Your task to perform on an android device: Open Wikipedia Image 0: 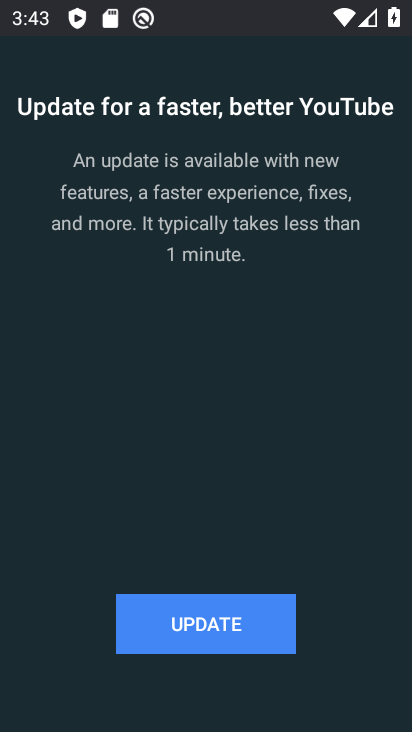
Step 0: drag from (157, 630) to (48, 592)
Your task to perform on an android device: Open Wikipedia Image 1: 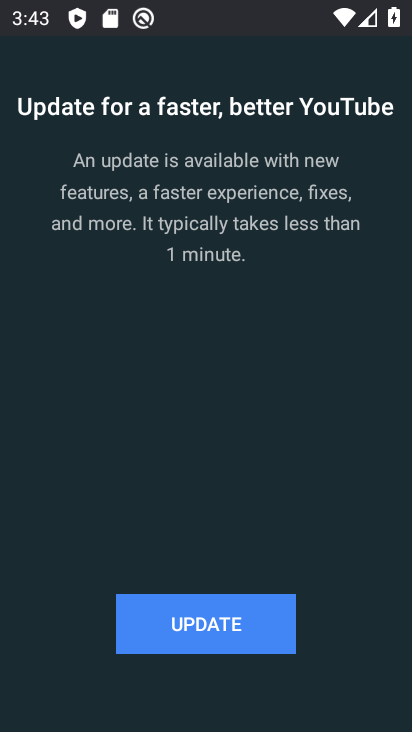
Step 1: press home button
Your task to perform on an android device: Open Wikipedia Image 2: 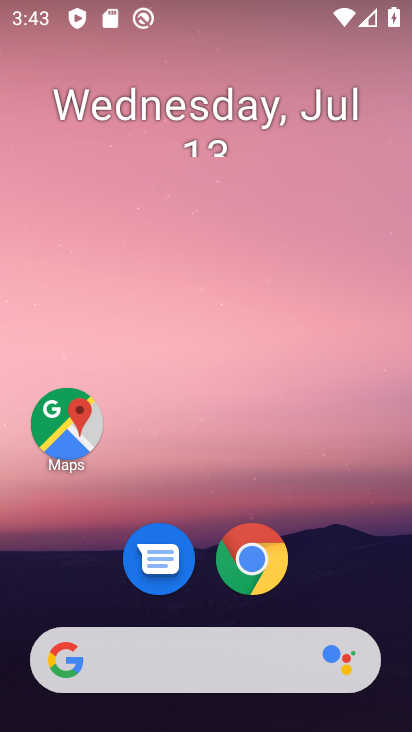
Step 2: click (250, 564)
Your task to perform on an android device: Open Wikipedia Image 3: 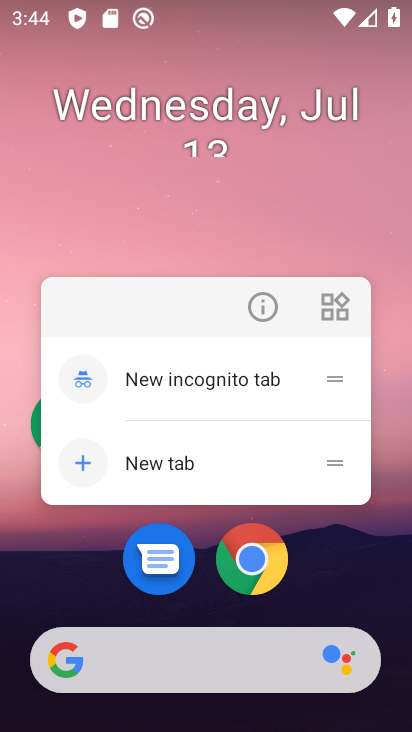
Step 3: click (243, 574)
Your task to perform on an android device: Open Wikipedia Image 4: 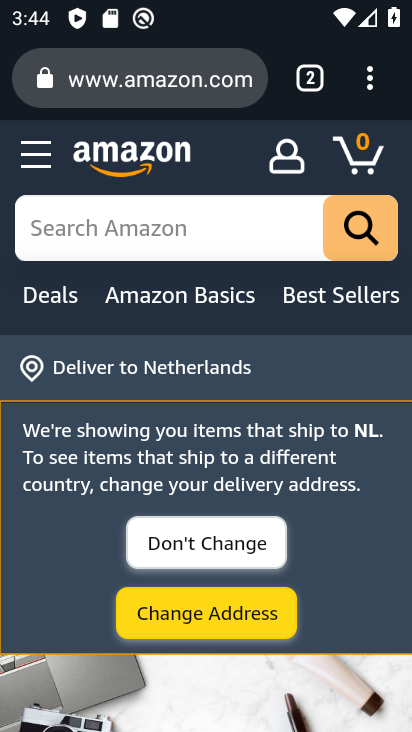
Step 4: click (315, 71)
Your task to perform on an android device: Open Wikipedia Image 5: 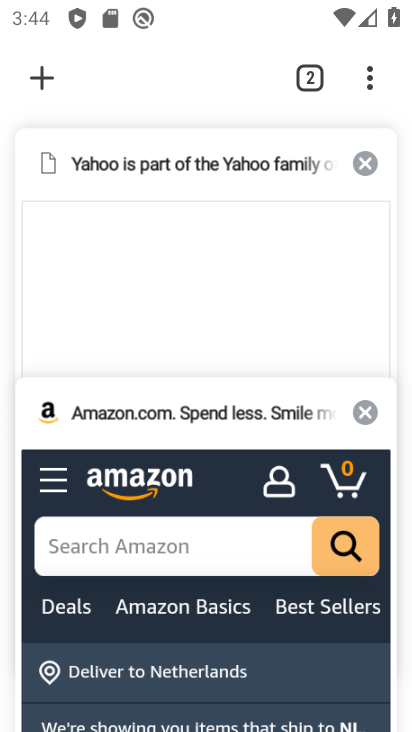
Step 5: click (353, 164)
Your task to perform on an android device: Open Wikipedia Image 6: 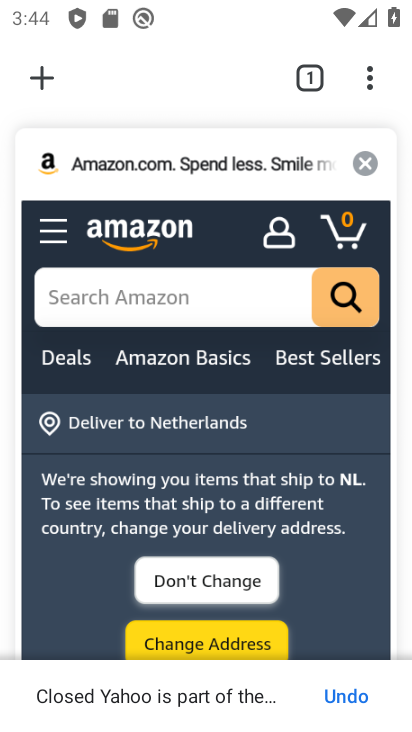
Step 6: click (360, 168)
Your task to perform on an android device: Open Wikipedia Image 7: 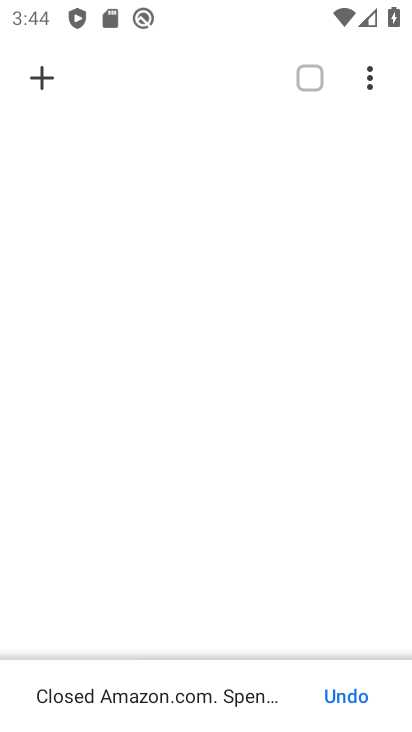
Step 7: click (35, 75)
Your task to perform on an android device: Open Wikipedia Image 8: 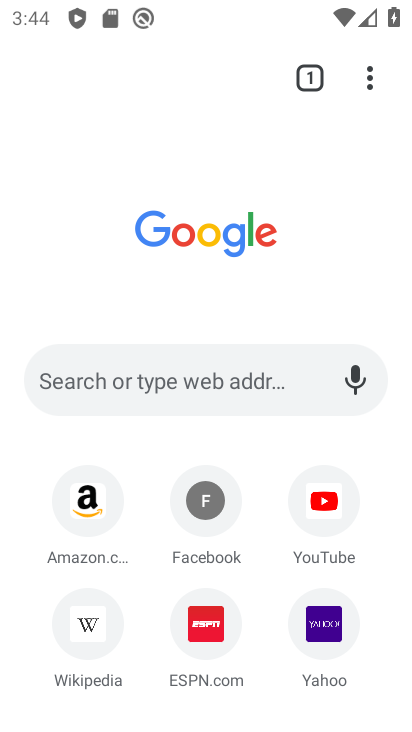
Step 8: click (90, 625)
Your task to perform on an android device: Open Wikipedia Image 9: 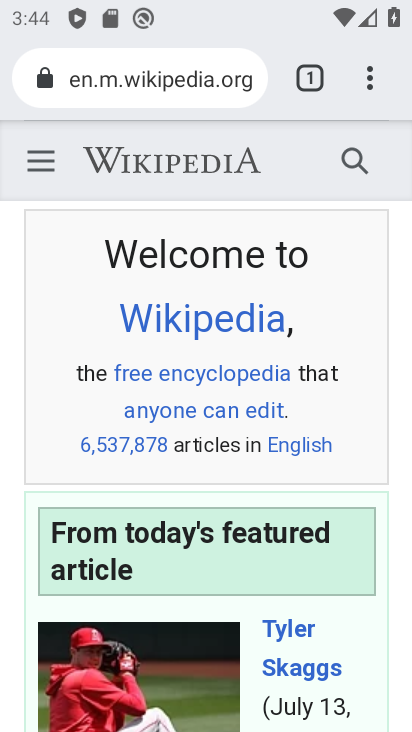
Step 9: task complete